Your task to perform on an android device: Open Google Maps Image 0: 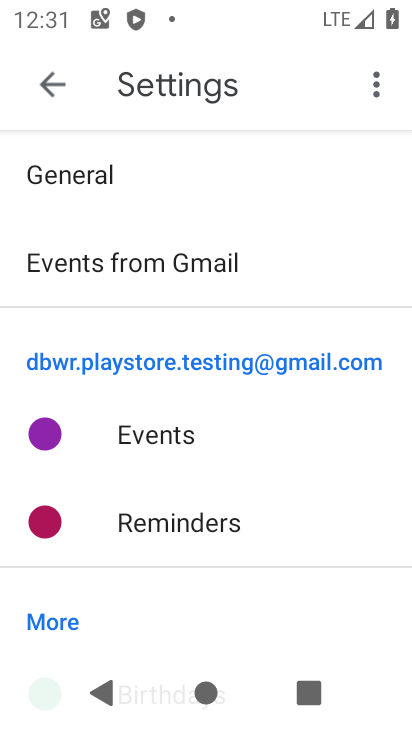
Step 0: press home button
Your task to perform on an android device: Open Google Maps Image 1: 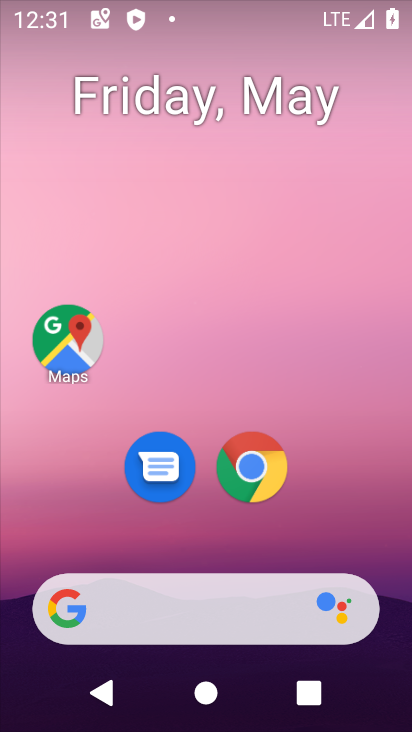
Step 1: click (66, 340)
Your task to perform on an android device: Open Google Maps Image 2: 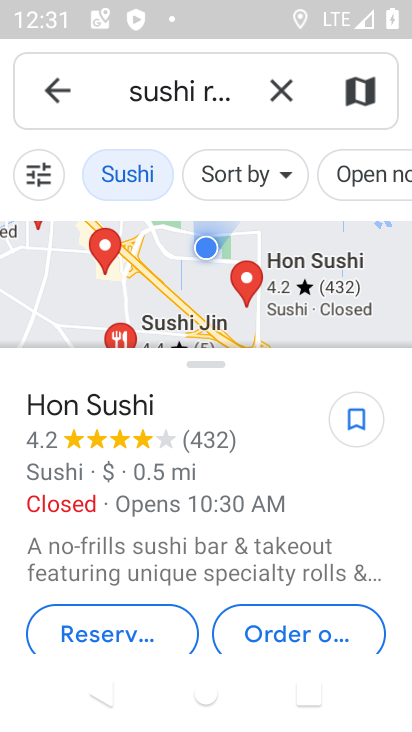
Step 2: click (279, 88)
Your task to perform on an android device: Open Google Maps Image 3: 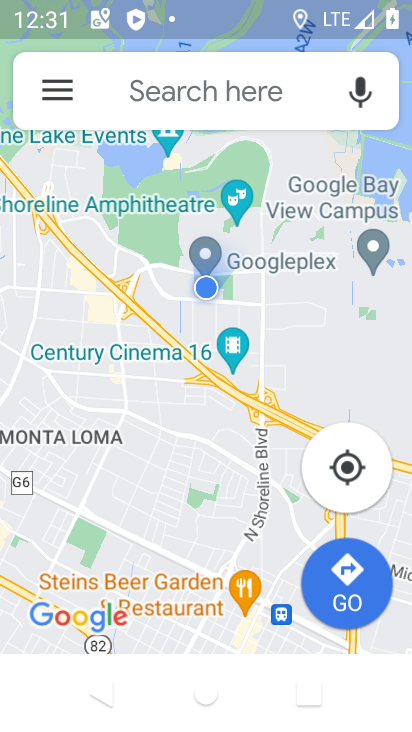
Step 3: task complete